Your task to perform on an android device: Search for the Nintendo Switch. Image 0: 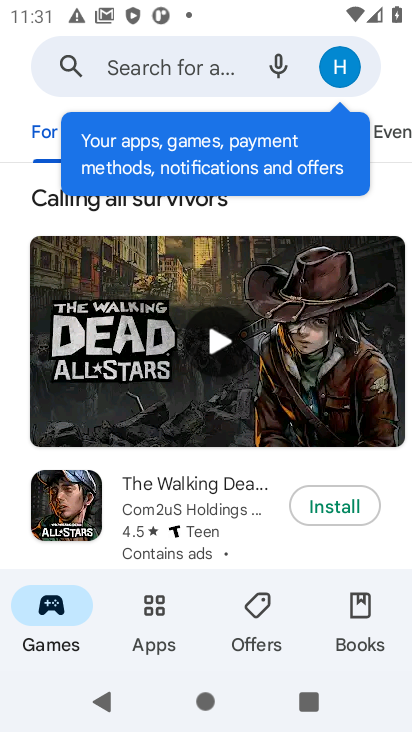
Step 0: press home button
Your task to perform on an android device: Search for the Nintendo Switch. Image 1: 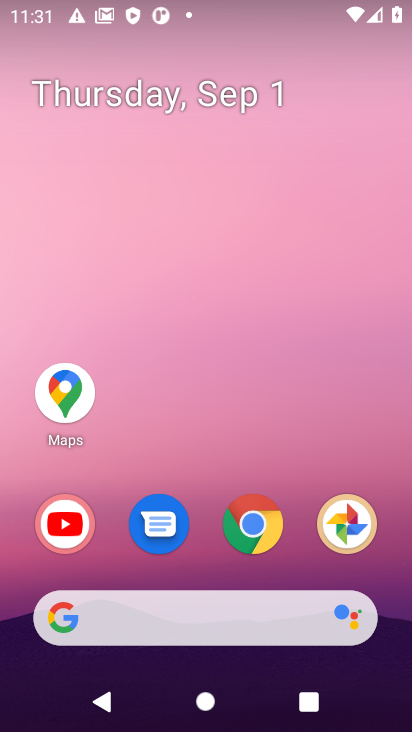
Step 1: click (258, 536)
Your task to perform on an android device: Search for the Nintendo Switch. Image 2: 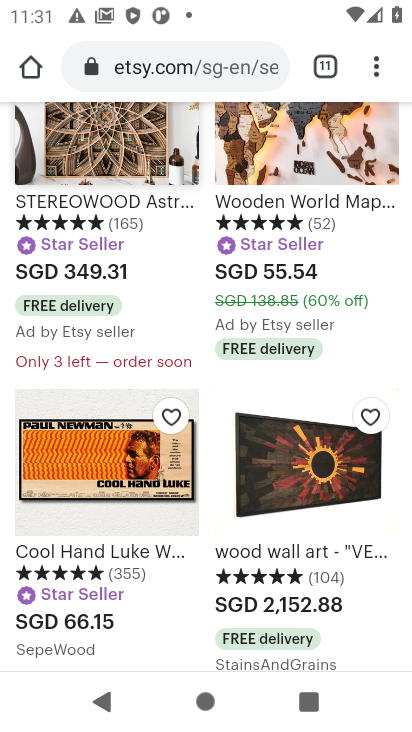
Step 2: click (325, 70)
Your task to perform on an android device: Search for the Nintendo Switch. Image 3: 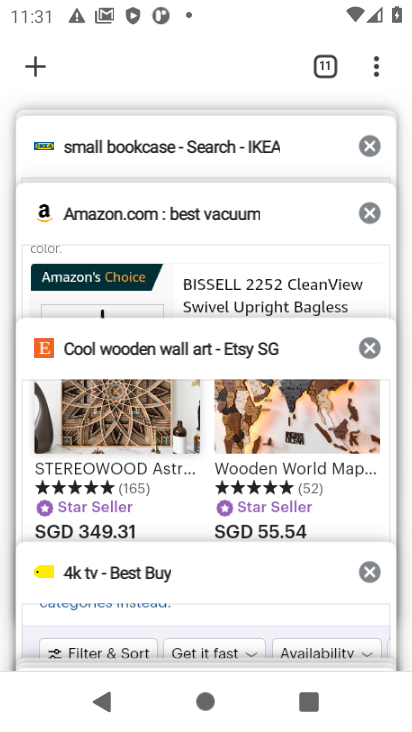
Step 3: click (33, 67)
Your task to perform on an android device: Search for the Nintendo Switch. Image 4: 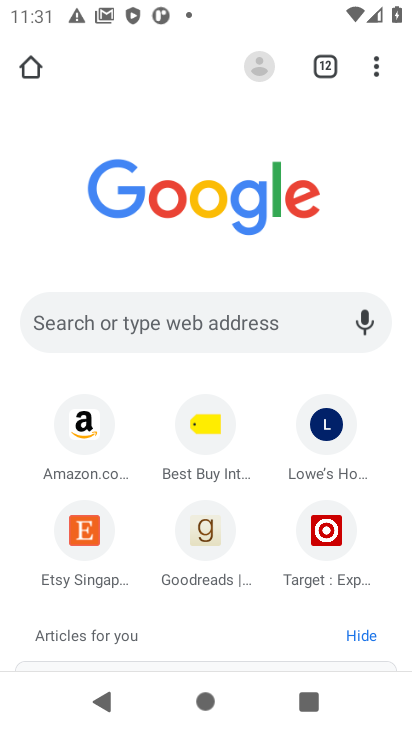
Step 4: click (196, 310)
Your task to perform on an android device: Search for the Nintendo Switch. Image 5: 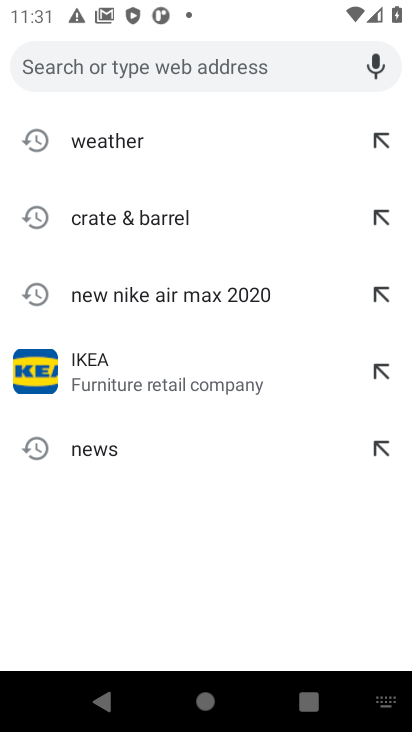
Step 5: type "Nintendo Switch"
Your task to perform on an android device: Search for the Nintendo Switch. Image 6: 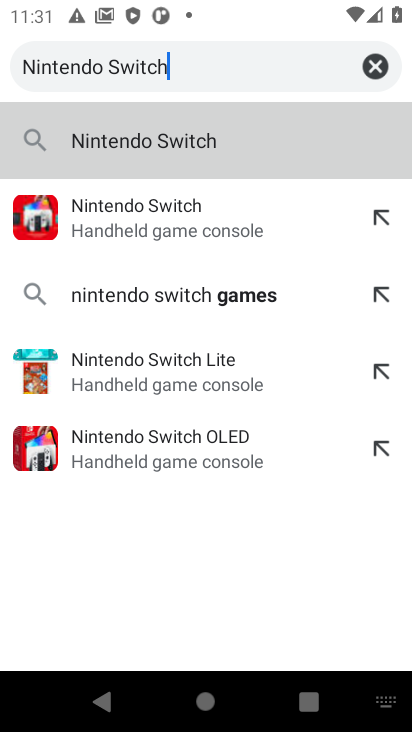
Step 6: click (237, 149)
Your task to perform on an android device: Search for the Nintendo Switch. Image 7: 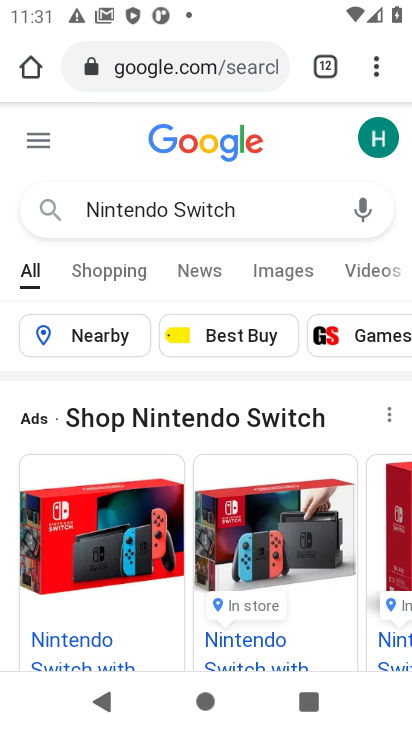
Step 7: task complete